Your task to perform on an android device: Go to eBay Image 0: 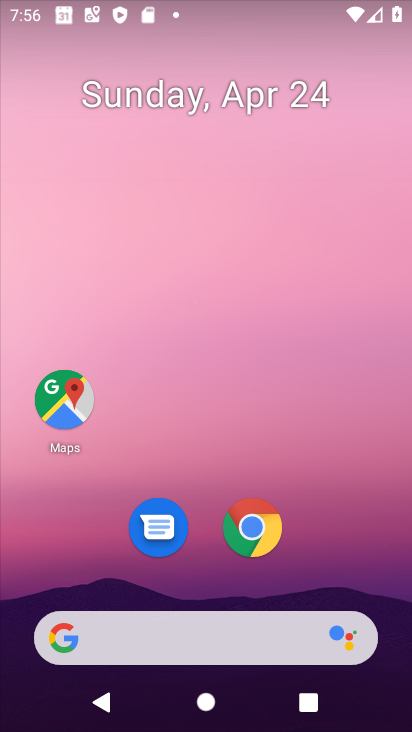
Step 0: drag from (339, 501) to (202, 28)
Your task to perform on an android device: Go to eBay Image 1: 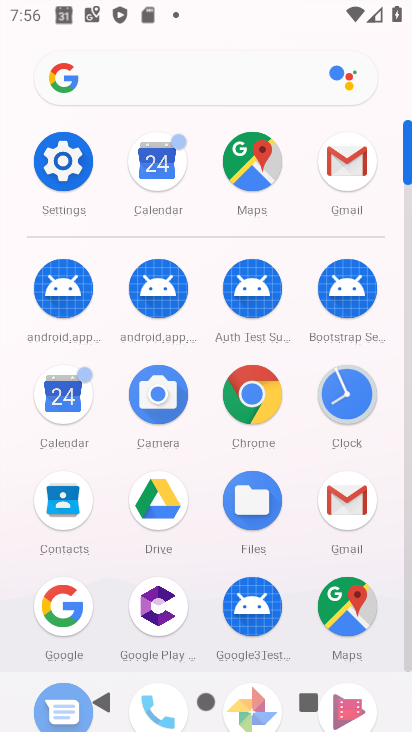
Step 1: click (247, 394)
Your task to perform on an android device: Go to eBay Image 2: 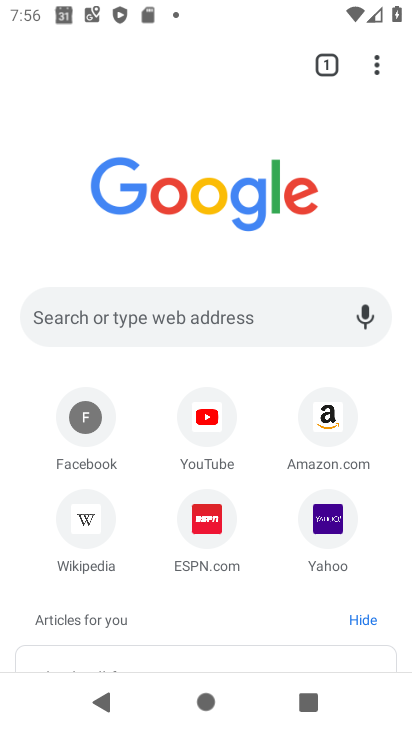
Step 2: click (173, 309)
Your task to perform on an android device: Go to eBay Image 3: 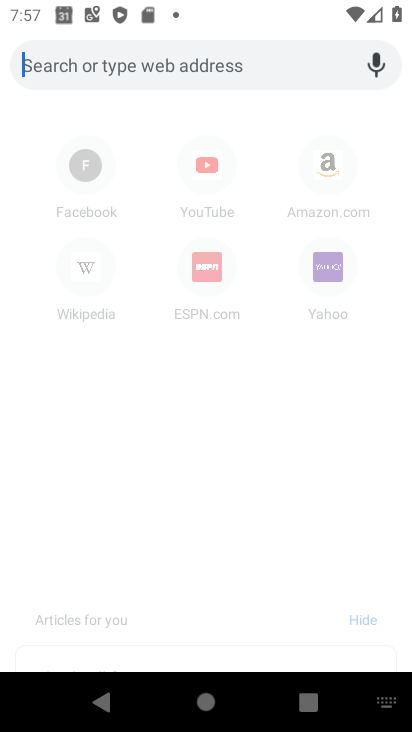
Step 3: type "ebay"
Your task to perform on an android device: Go to eBay Image 4: 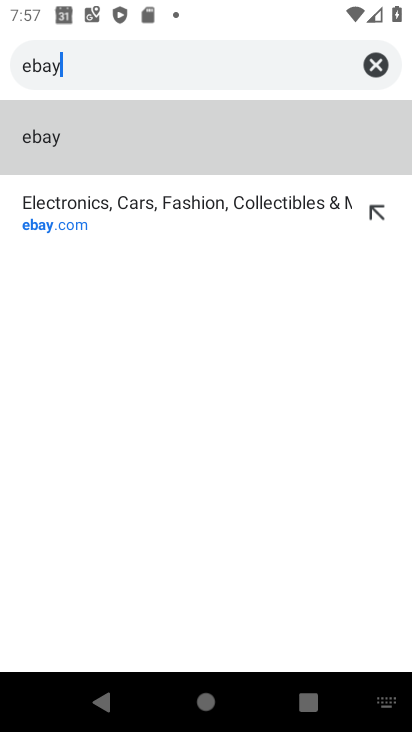
Step 4: click (161, 142)
Your task to perform on an android device: Go to eBay Image 5: 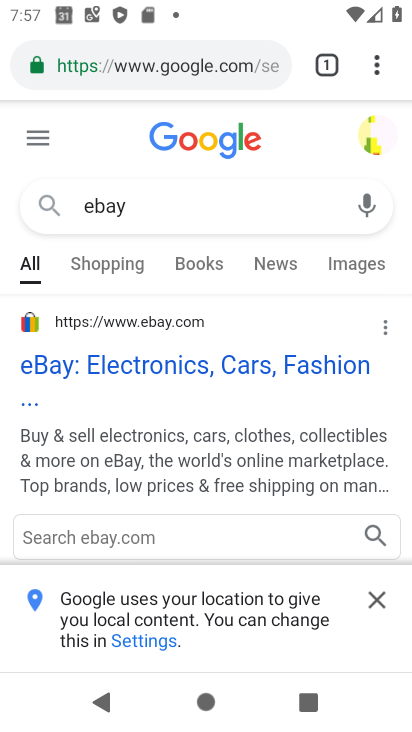
Step 5: click (217, 355)
Your task to perform on an android device: Go to eBay Image 6: 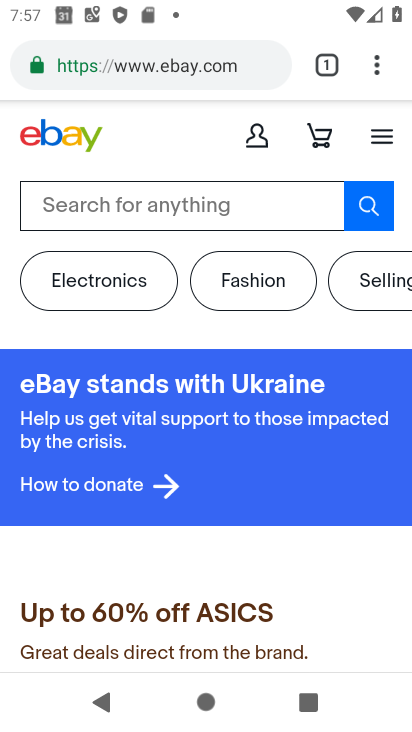
Step 6: task complete